Your task to perform on an android device: Open my contact list Image 0: 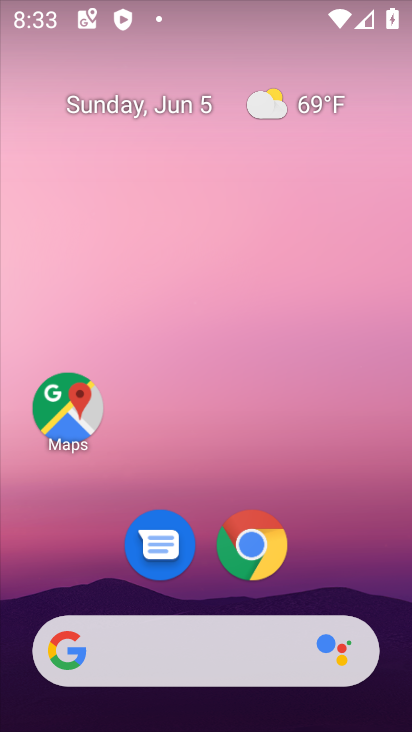
Step 0: drag from (353, 571) to (392, 149)
Your task to perform on an android device: Open my contact list Image 1: 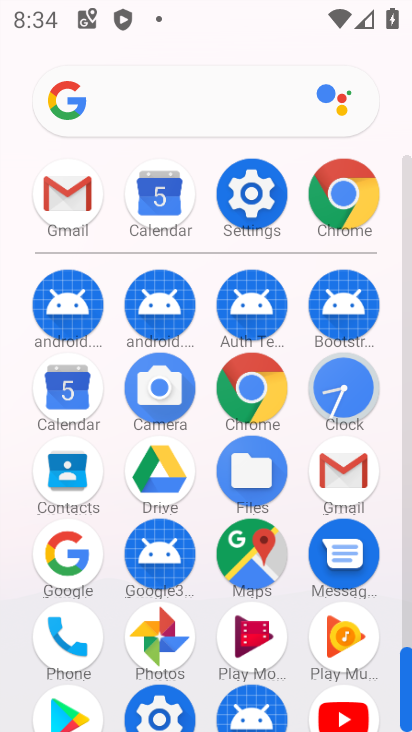
Step 1: click (80, 476)
Your task to perform on an android device: Open my contact list Image 2: 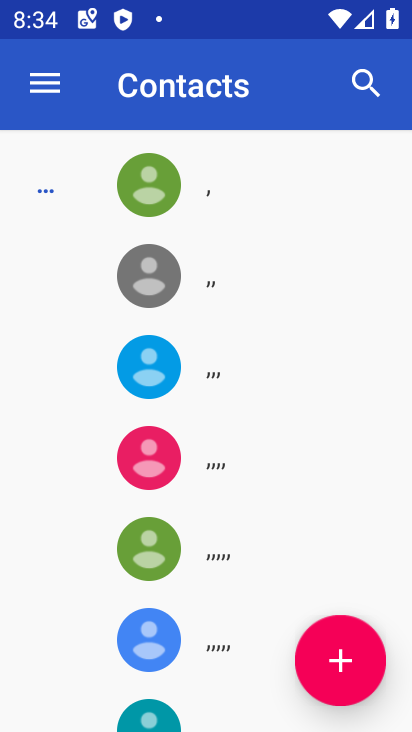
Step 2: task complete